Your task to perform on an android device: turn off javascript in the chrome app Image 0: 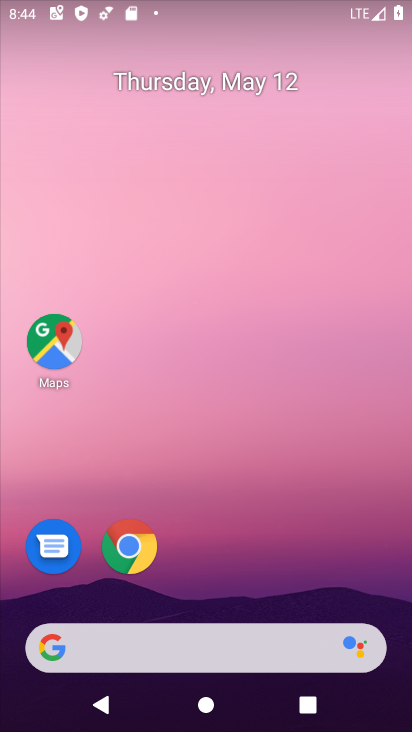
Step 0: click (139, 549)
Your task to perform on an android device: turn off javascript in the chrome app Image 1: 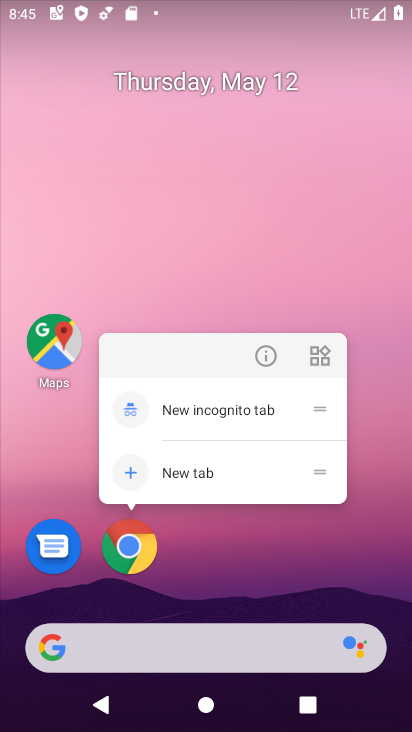
Step 1: click (135, 543)
Your task to perform on an android device: turn off javascript in the chrome app Image 2: 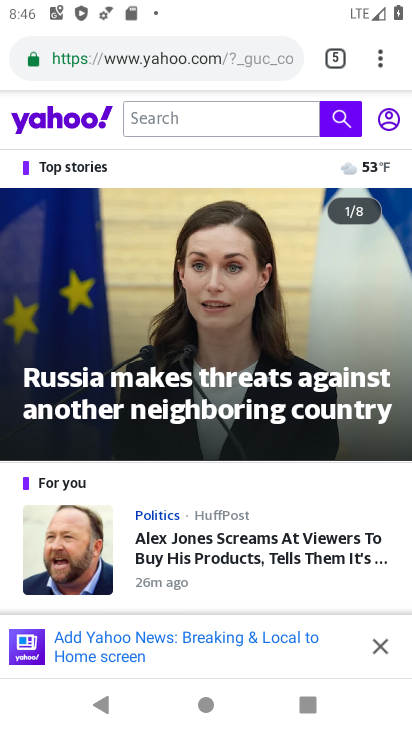
Step 2: click (380, 59)
Your task to perform on an android device: turn off javascript in the chrome app Image 3: 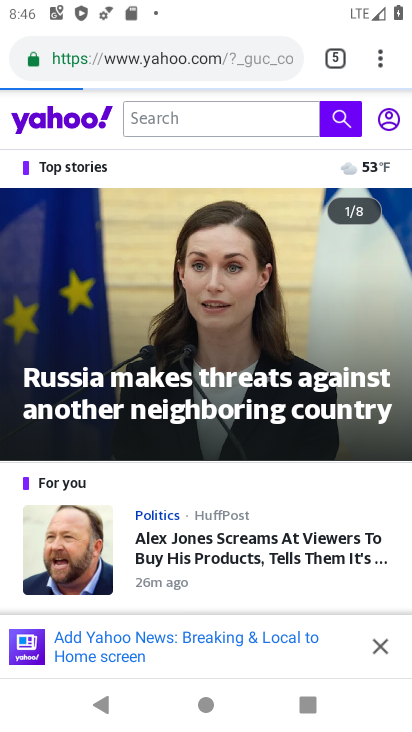
Step 3: drag from (383, 58) to (182, 571)
Your task to perform on an android device: turn off javascript in the chrome app Image 4: 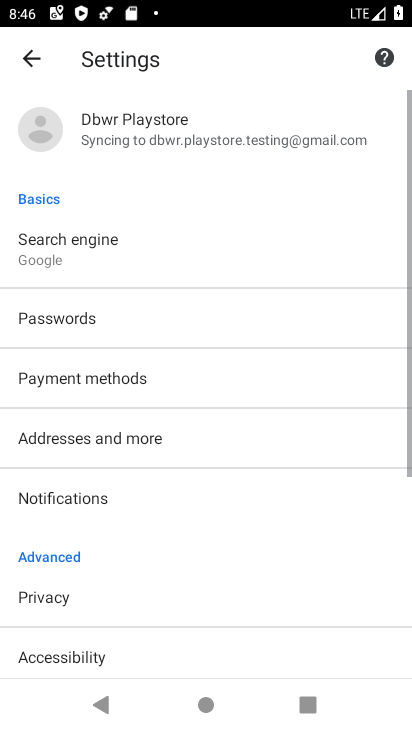
Step 4: drag from (108, 629) to (253, 148)
Your task to perform on an android device: turn off javascript in the chrome app Image 5: 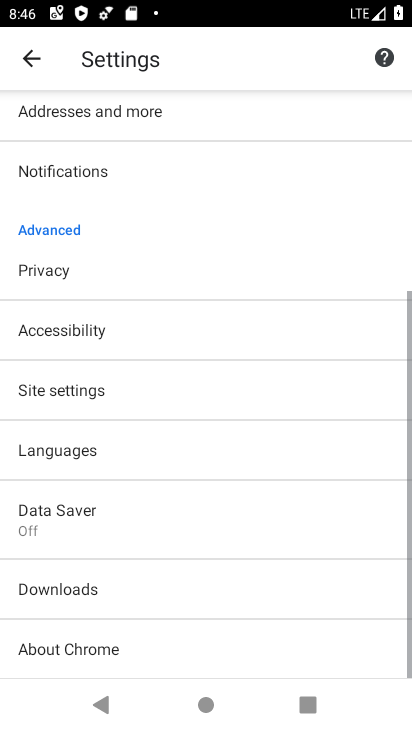
Step 5: click (41, 391)
Your task to perform on an android device: turn off javascript in the chrome app Image 6: 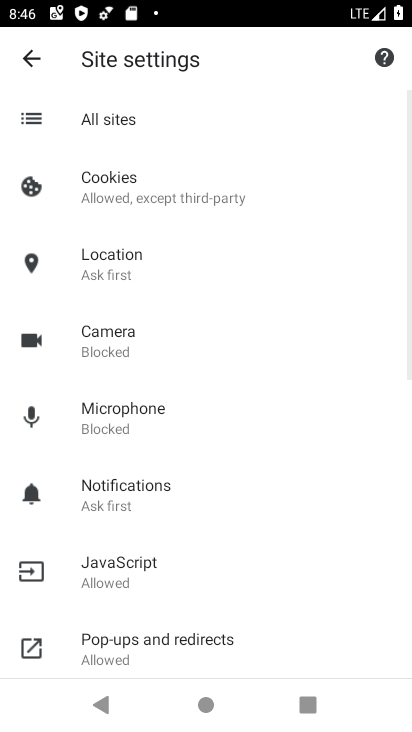
Step 6: click (129, 562)
Your task to perform on an android device: turn off javascript in the chrome app Image 7: 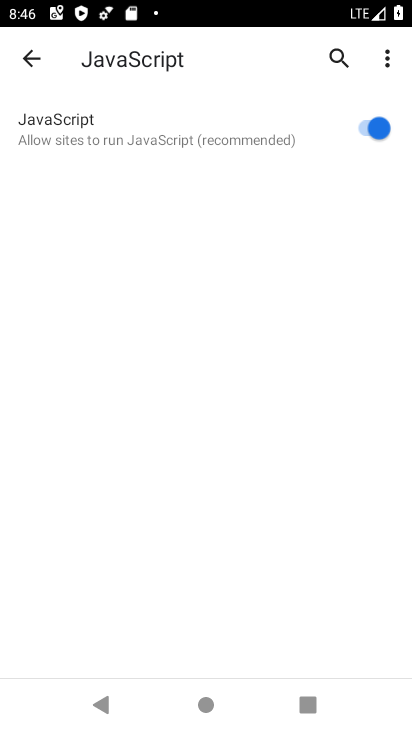
Step 7: click (371, 127)
Your task to perform on an android device: turn off javascript in the chrome app Image 8: 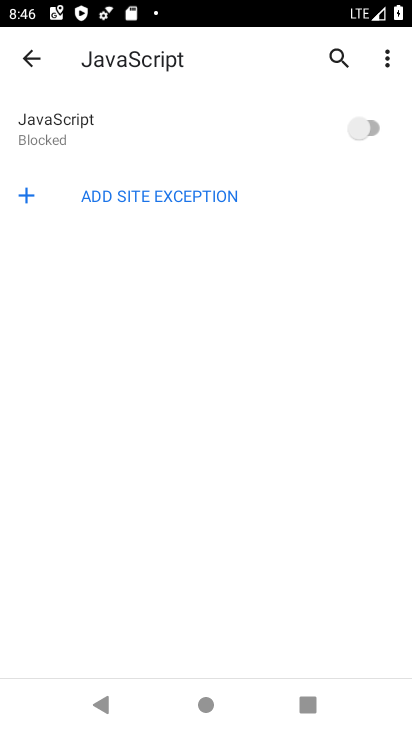
Step 8: task complete